Your task to perform on an android device: Show me popular videos on Youtube Image 0: 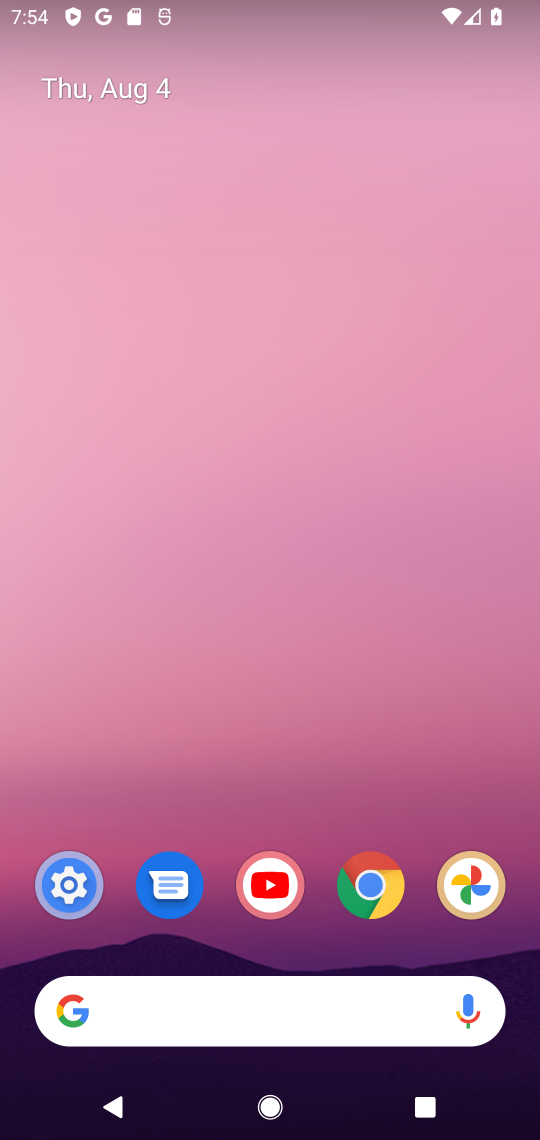
Step 0: click (264, 875)
Your task to perform on an android device: Show me popular videos on Youtube Image 1: 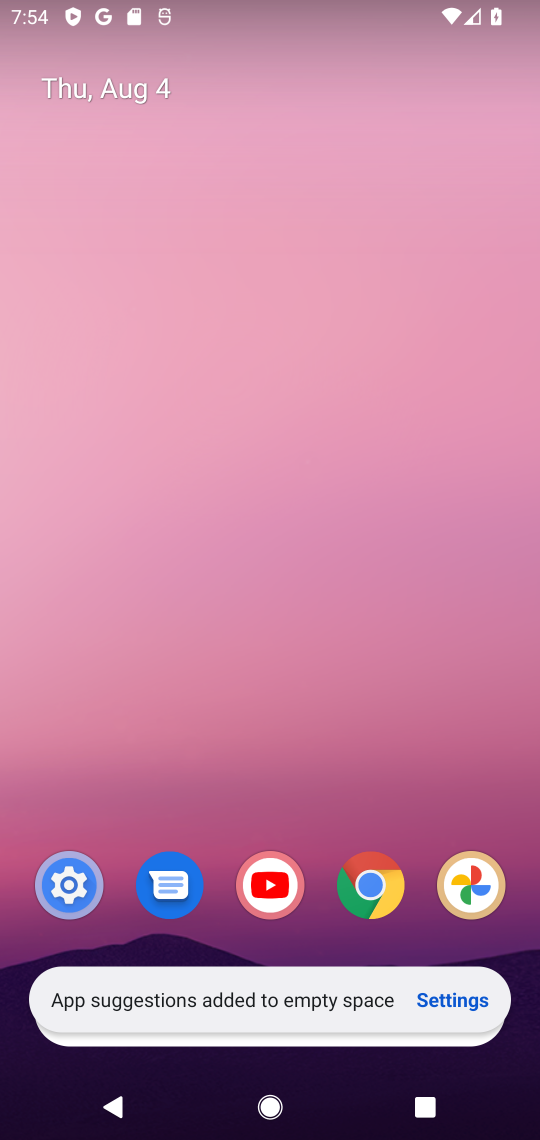
Step 1: click (264, 882)
Your task to perform on an android device: Show me popular videos on Youtube Image 2: 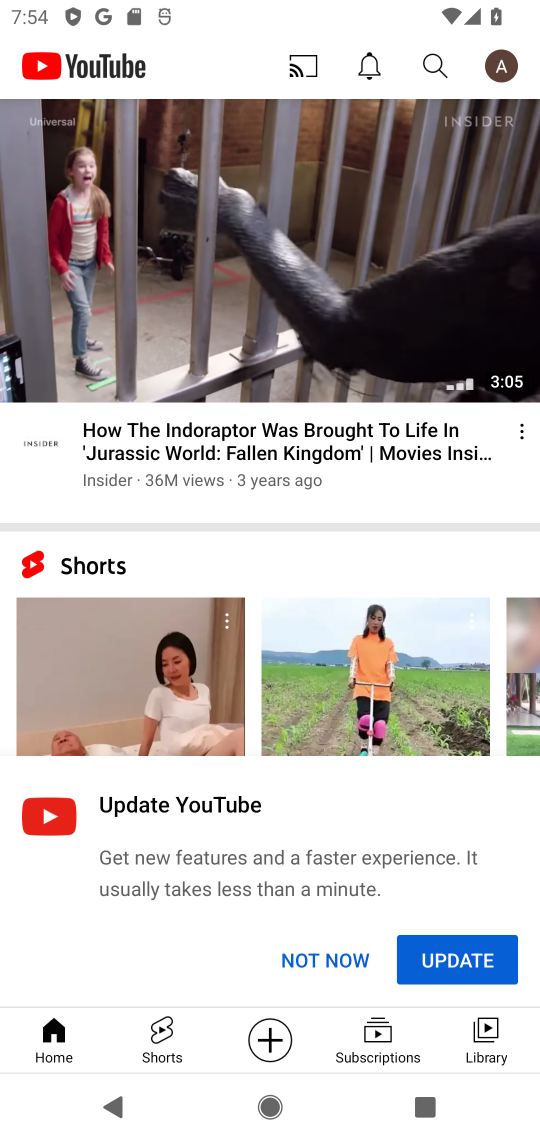
Step 2: click (442, 961)
Your task to perform on an android device: Show me popular videos on Youtube Image 3: 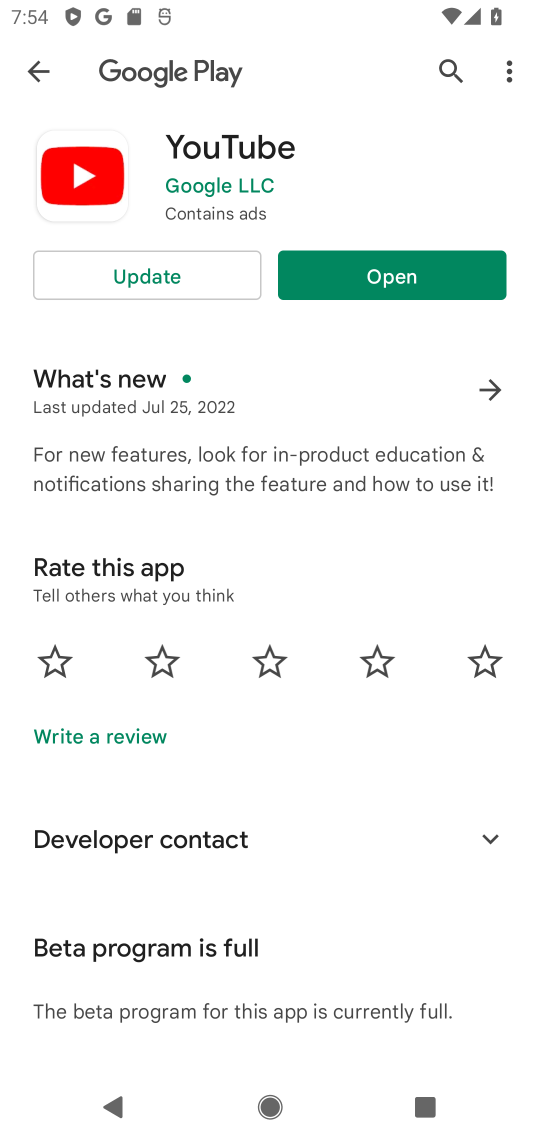
Step 3: click (147, 269)
Your task to perform on an android device: Show me popular videos on Youtube Image 4: 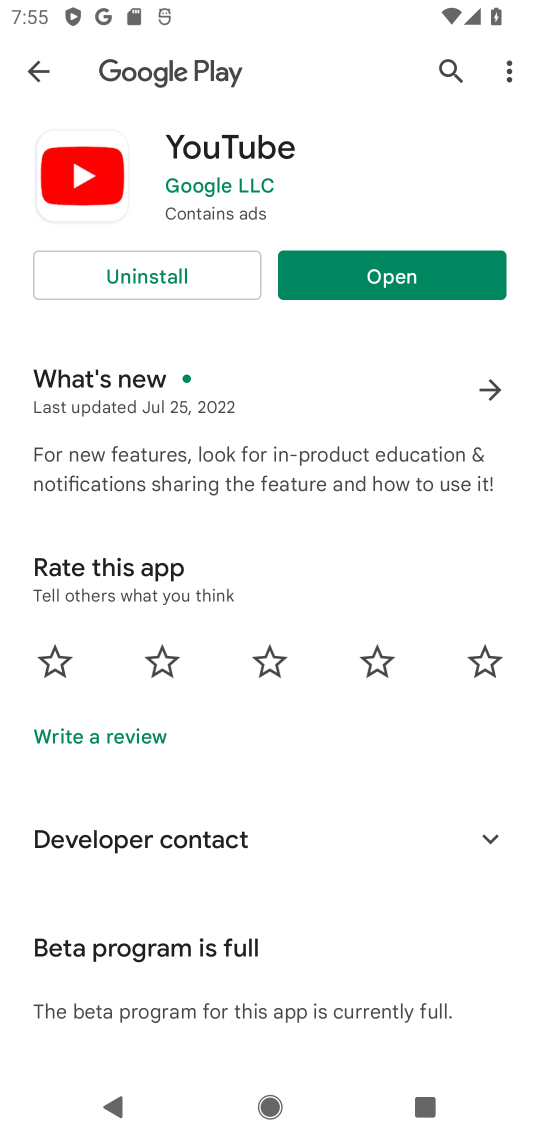
Step 4: click (392, 276)
Your task to perform on an android device: Show me popular videos on Youtube Image 5: 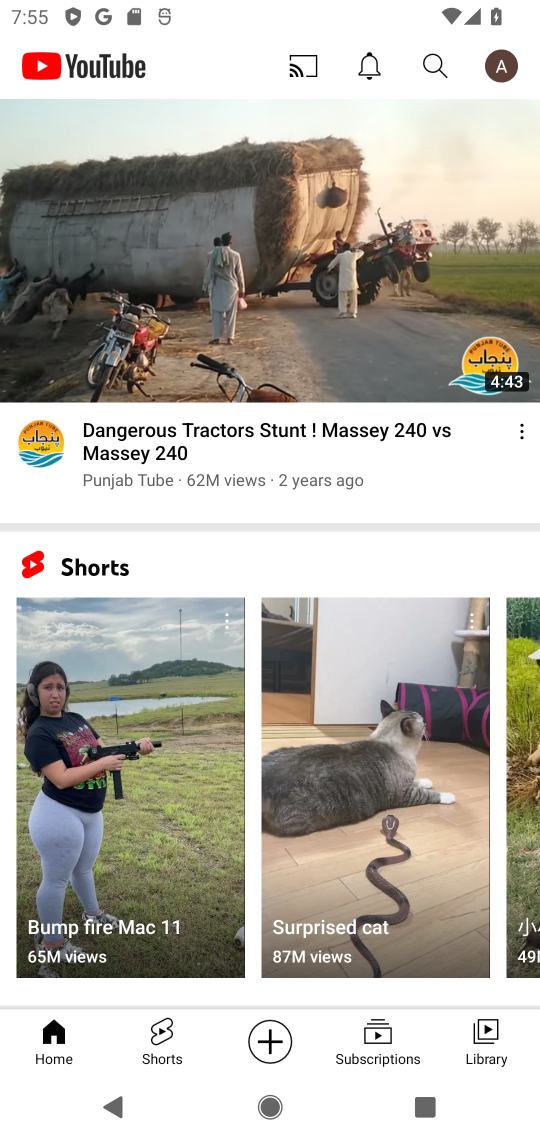
Step 5: drag from (187, 831) to (217, 124)
Your task to perform on an android device: Show me popular videos on Youtube Image 6: 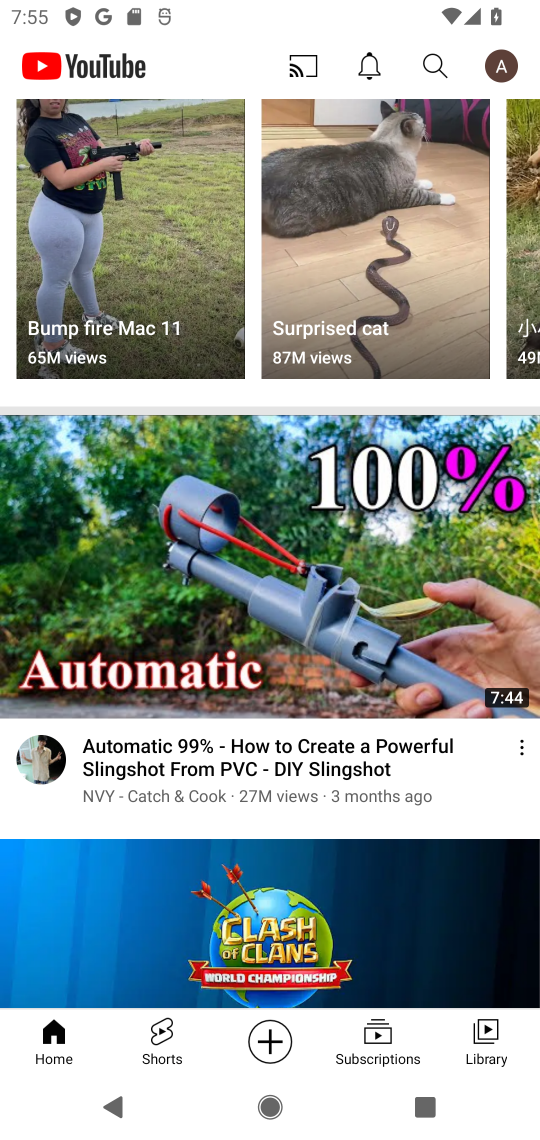
Step 6: drag from (282, 290) to (282, 816)
Your task to perform on an android device: Show me popular videos on Youtube Image 7: 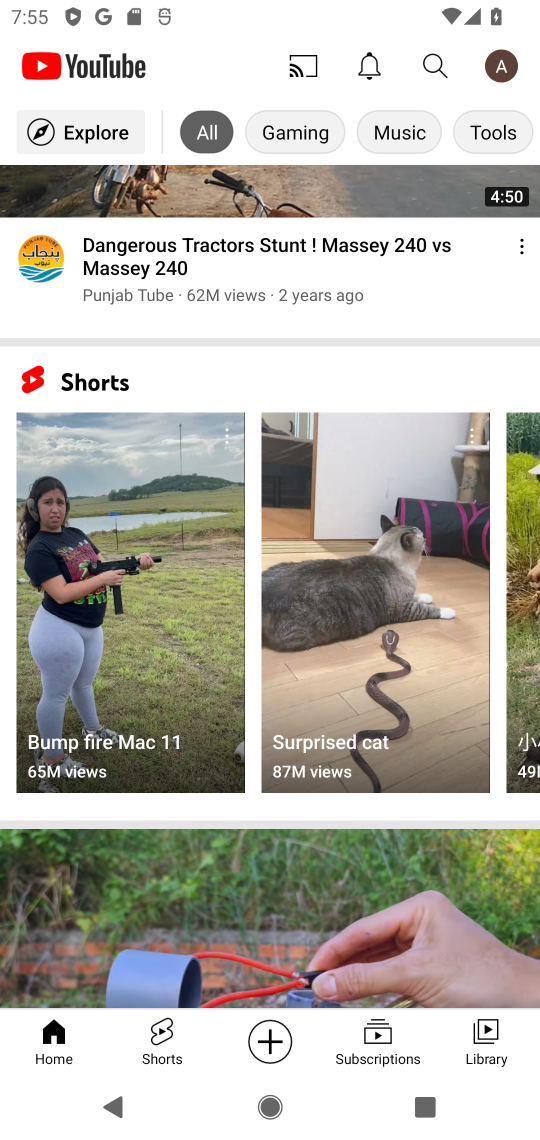
Step 7: click (84, 134)
Your task to perform on an android device: Show me popular videos on Youtube Image 8: 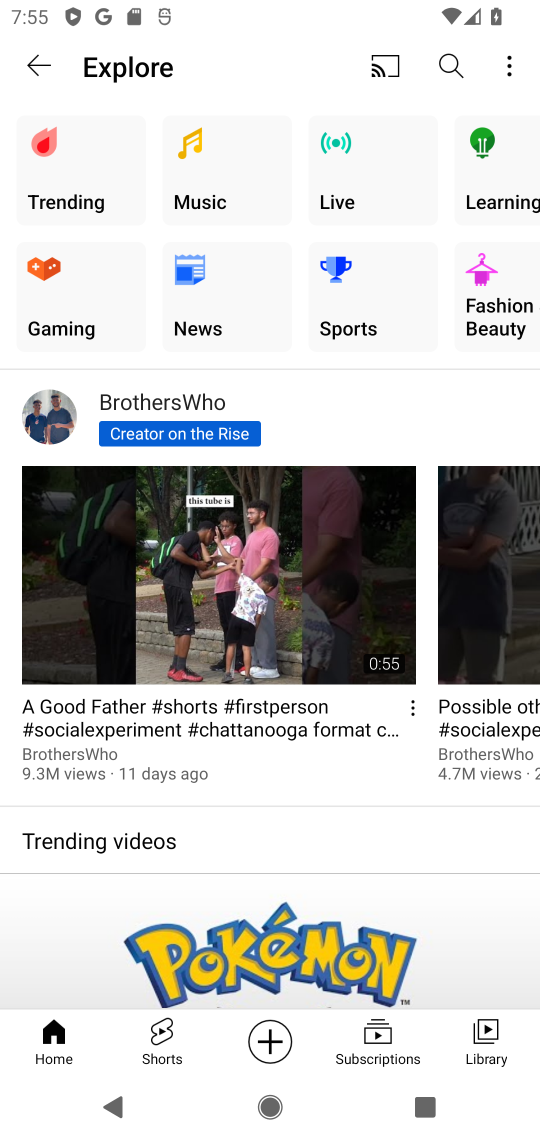
Step 8: click (68, 155)
Your task to perform on an android device: Show me popular videos on Youtube Image 9: 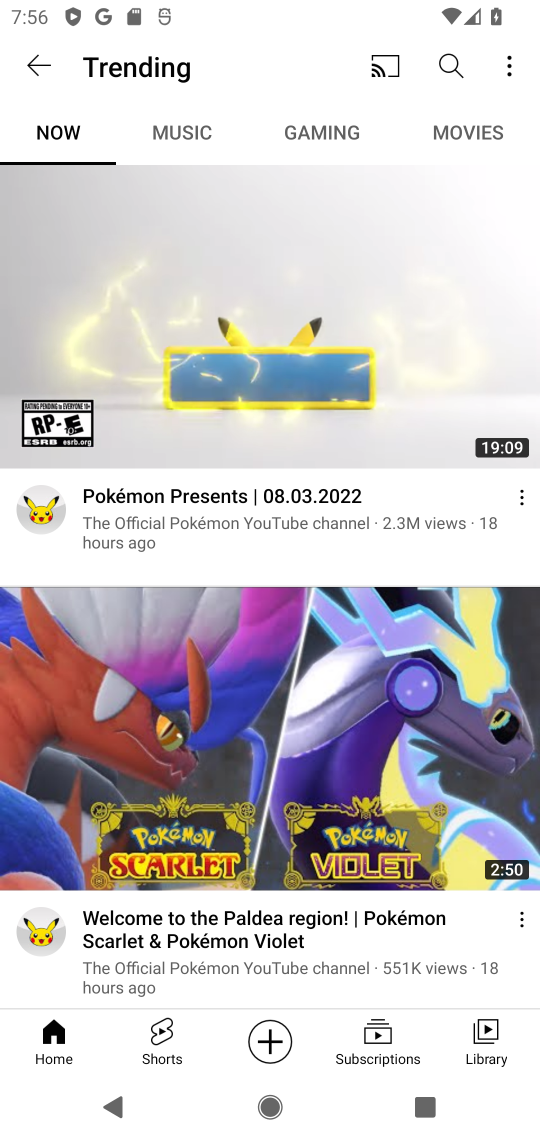
Step 9: task complete